Your task to perform on an android device: Open settings on Google Maps Image 0: 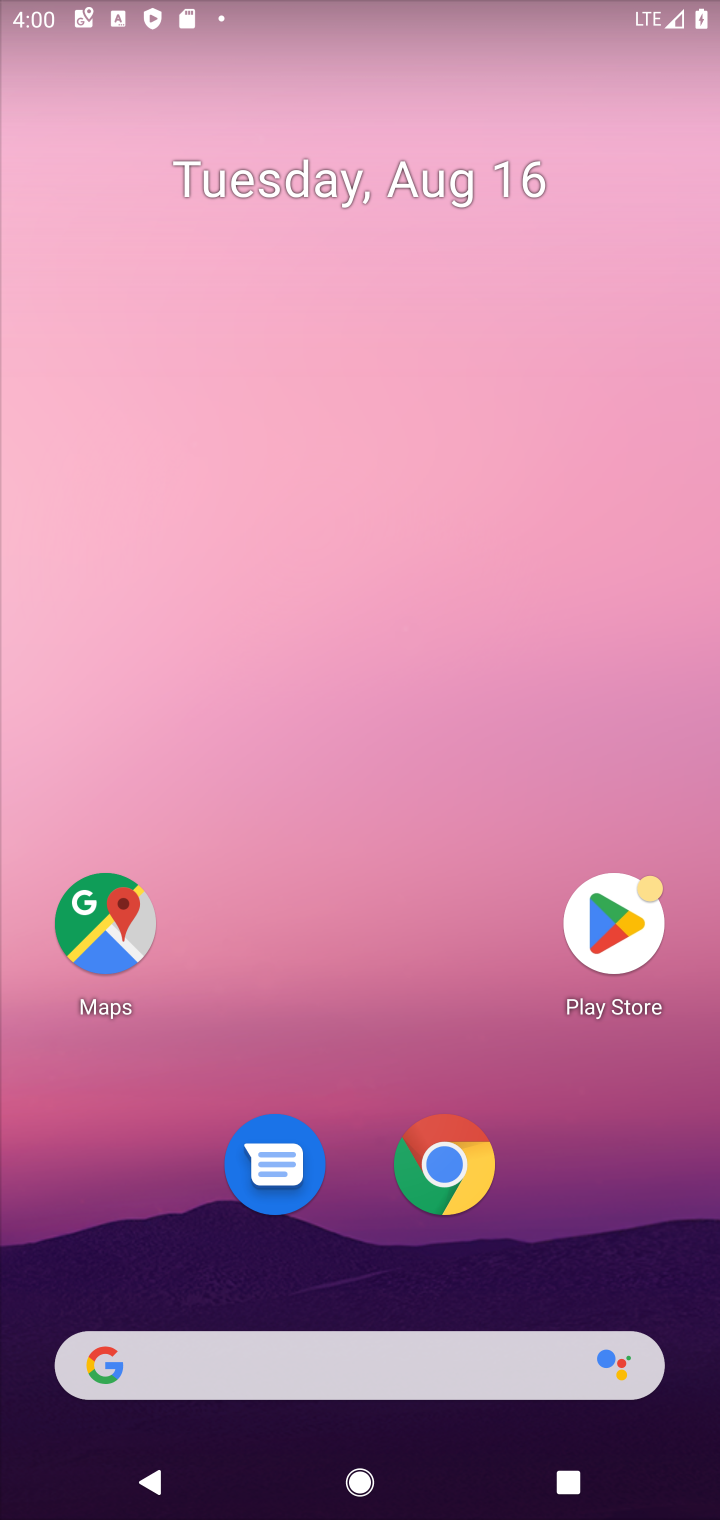
Step 0: drag from (408, 909) to (548, 0)
Your task to perform on an android device: Open settings on Google Maps Image 1: 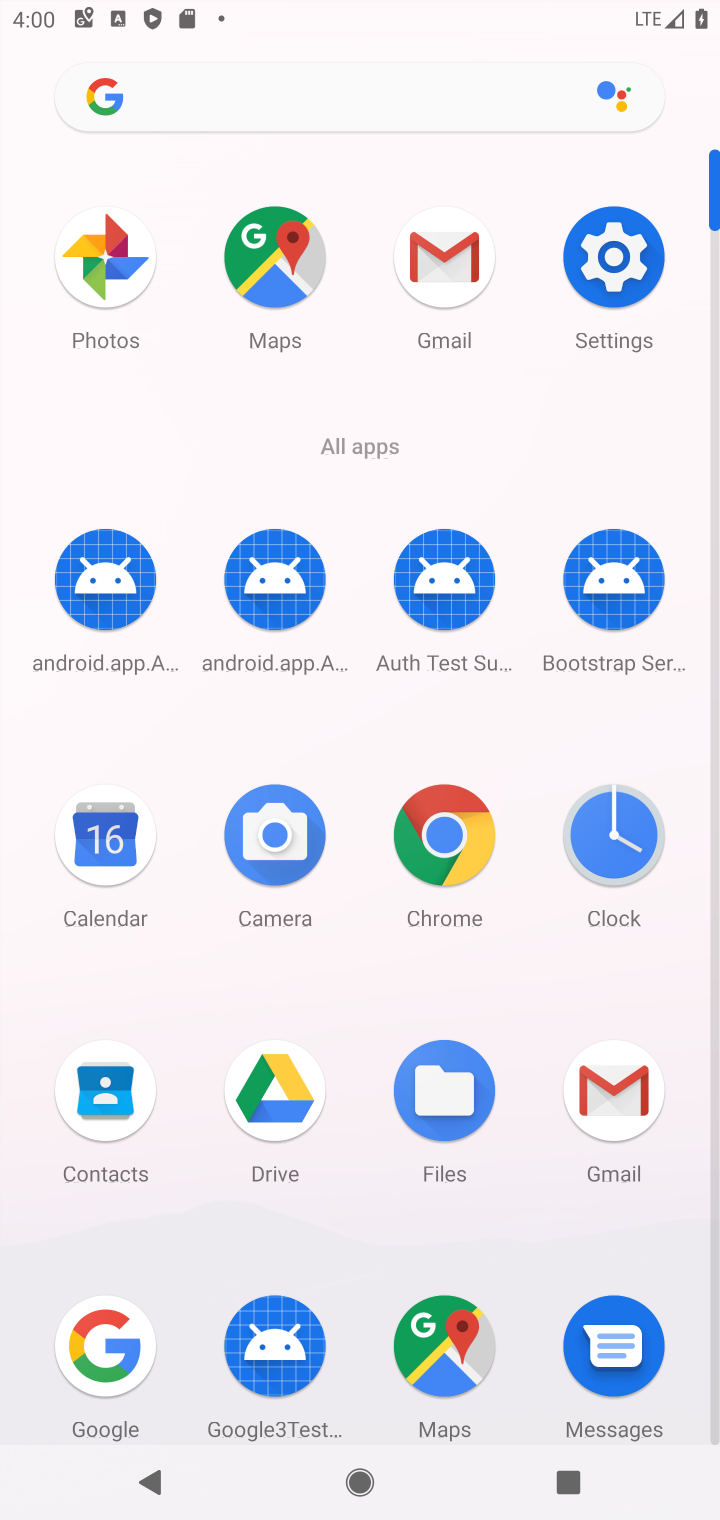
Step 1: drag from (511, 457) to (488, 29)
Your task to perform on an android device: Open settings on Google Maps Image 2: 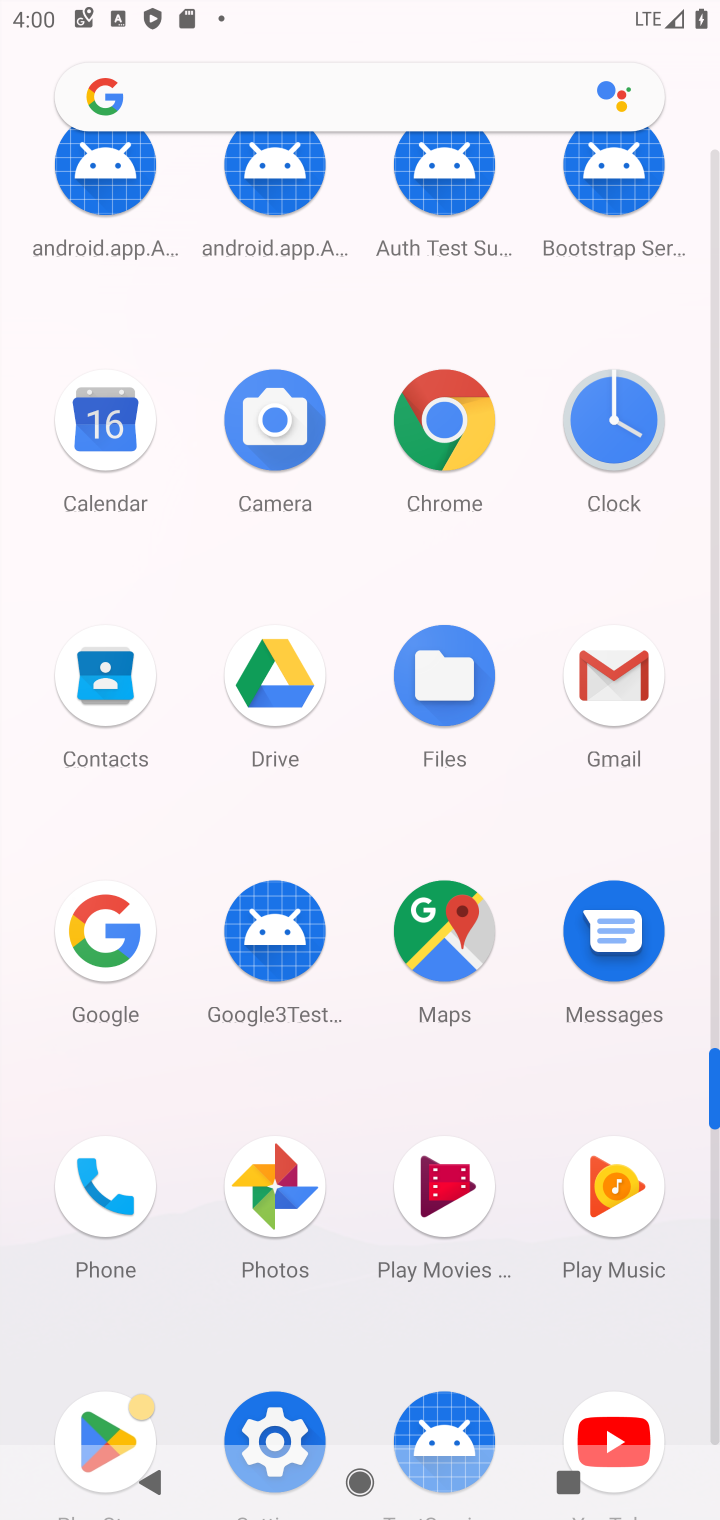
Step 2: click (468, 954)
Your task to perform on an android device: Open settings on Google Maps Image 3: 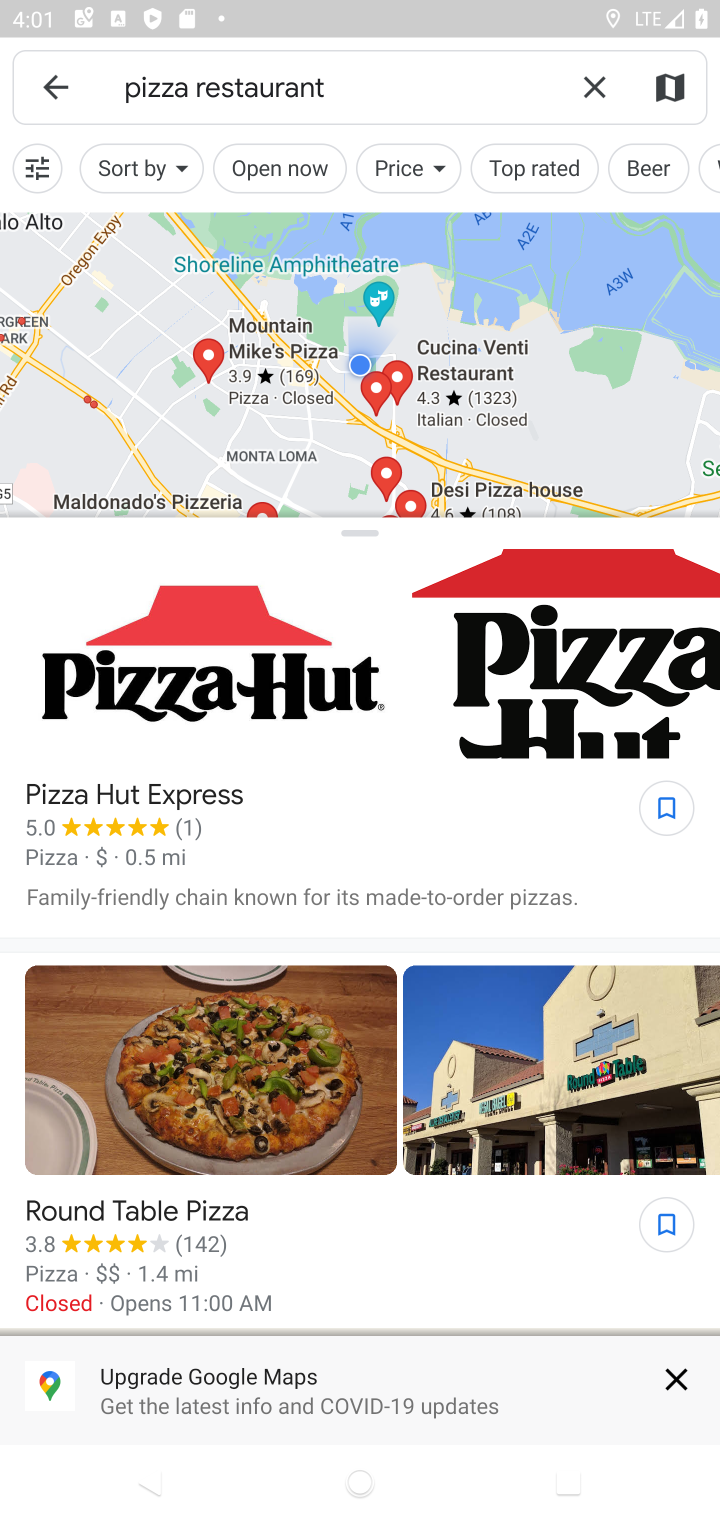
Step 3: press back button
Your task to perform on an android device: Open settings on Google Maps Image 4: 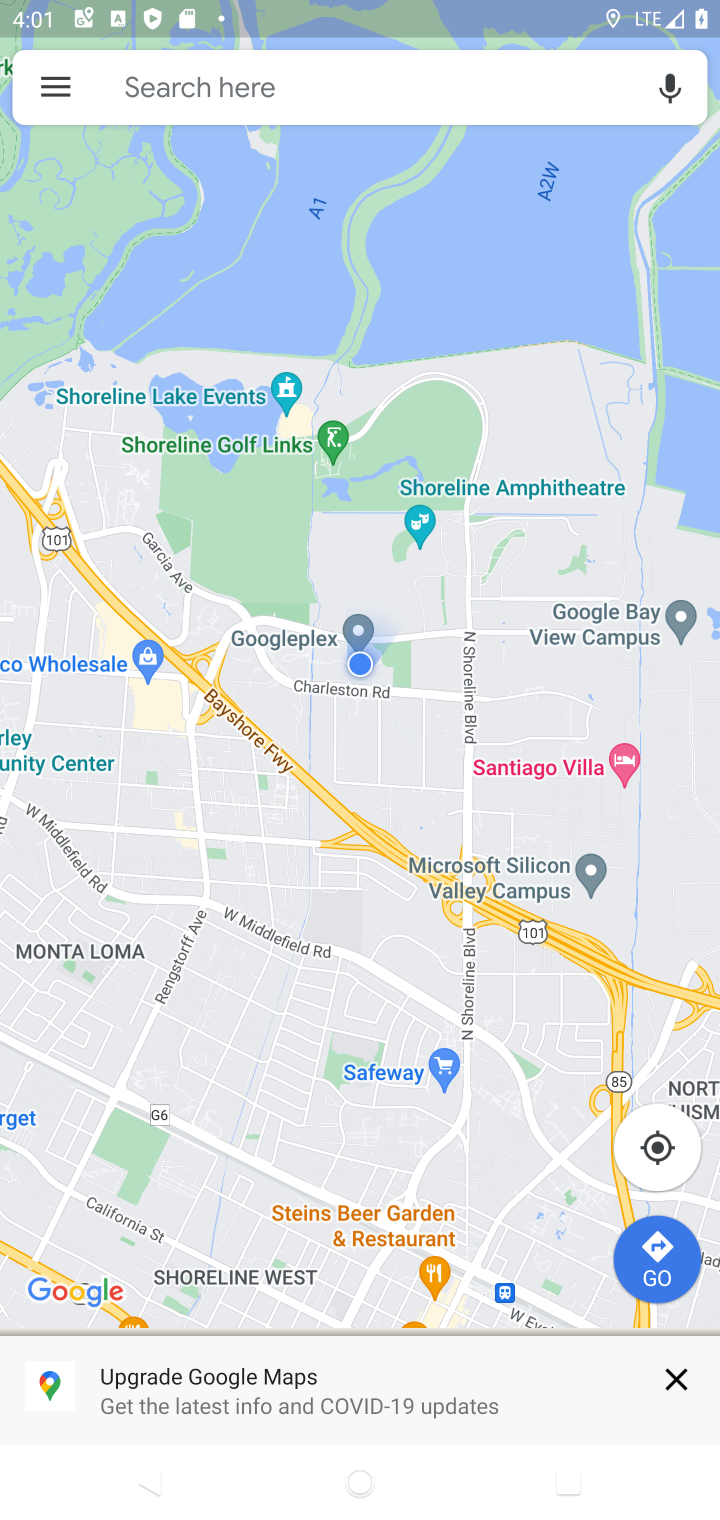
Step 4: click (76, 96)
Your task to perform on an android device: Open settings on Google Maps Image 5: 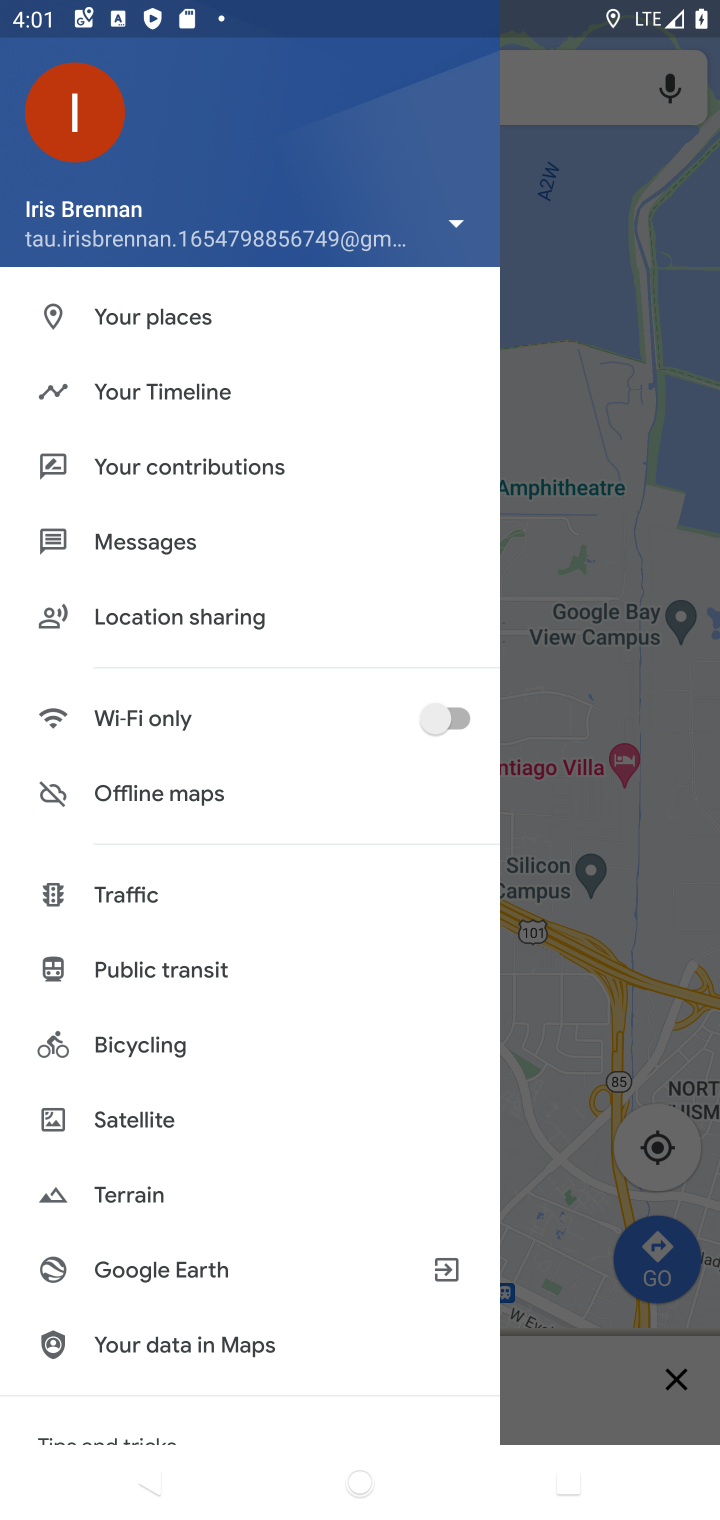
Step 5: drag from (301, 817) to (319, 413)
Your task to perform on an android device: Open settings on Google Maps Image 6: 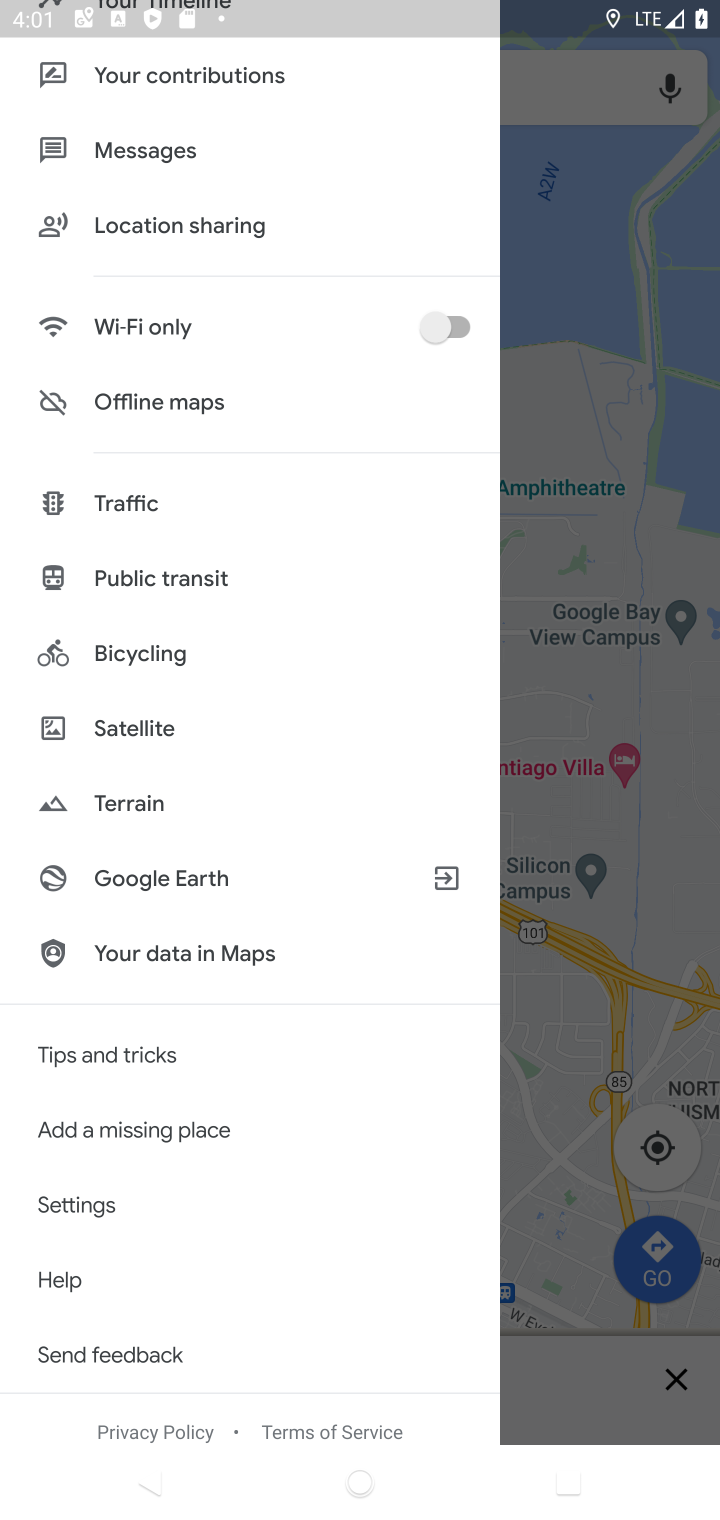
Step 6: click (168, 1211)
Your task to perform on an android device: Open settings on Google Maps Image 7: 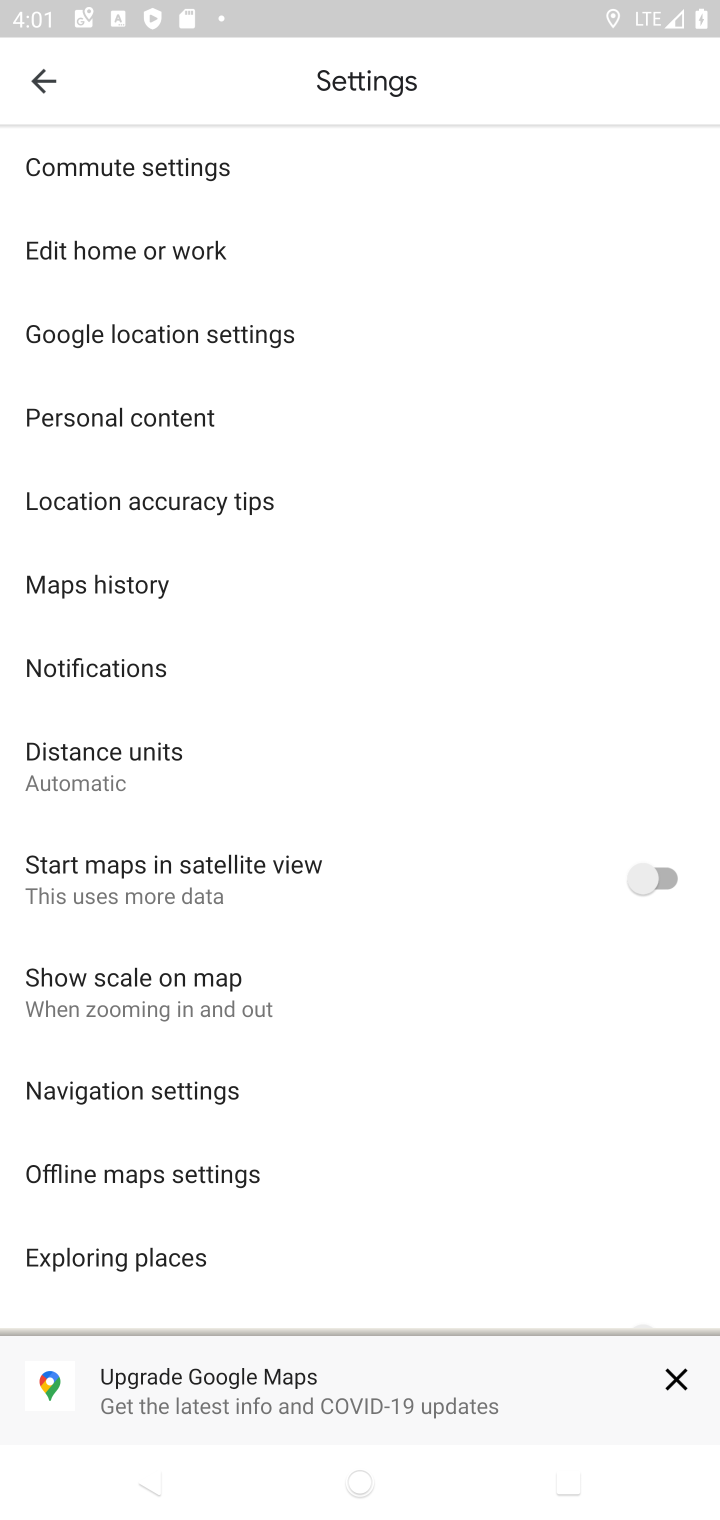
Step 7: task complete